Your task to perform on an android device: Search for flights from NYC to Chicago Image 0: 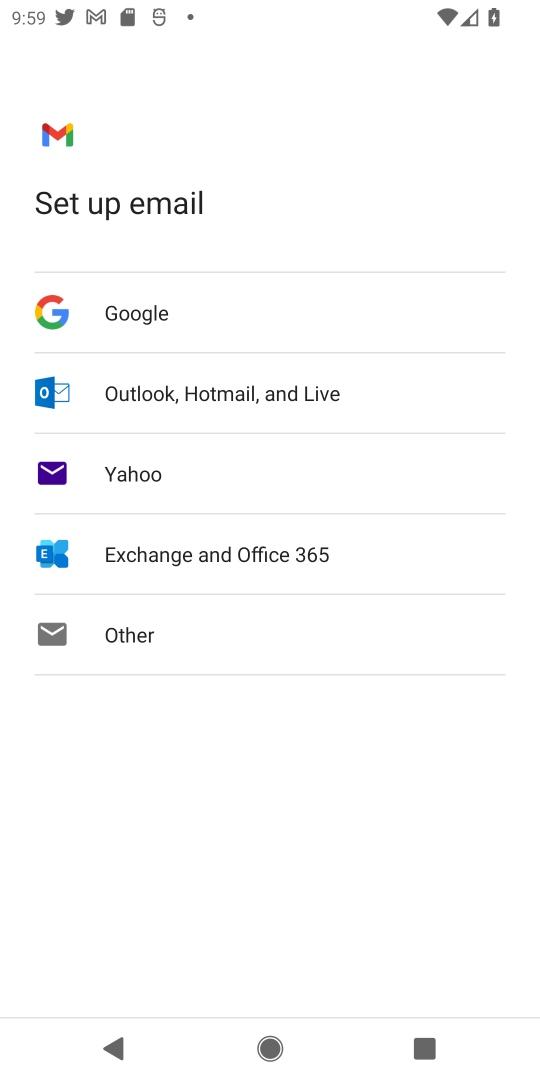
Step 0: press home button
Your task to perform on an android device: Search for flights from NYC to Chicago Image 1: 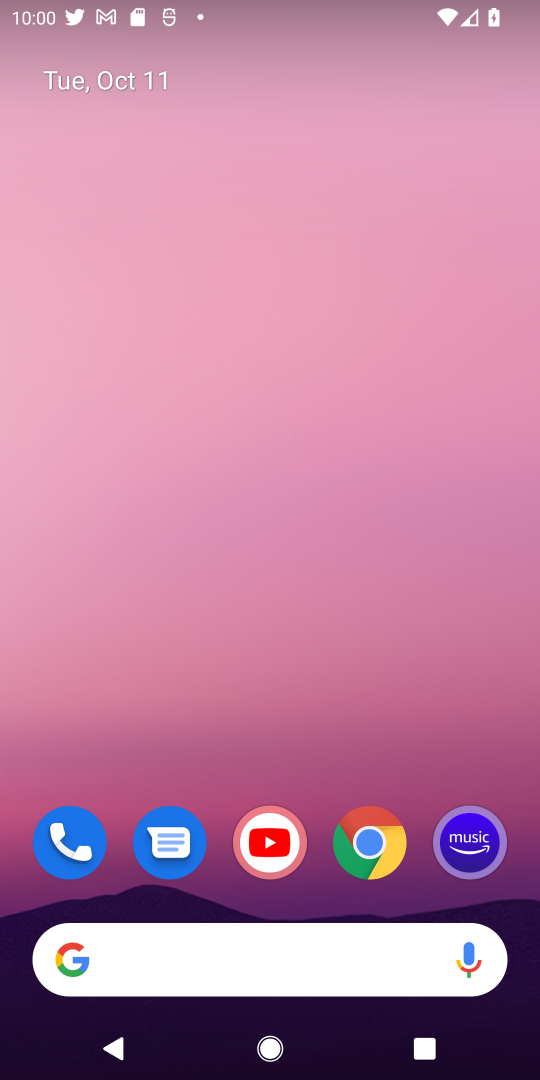
Step 1: click (348, 830)
Your task to perform on an android device: Search for flights from NYC to Chicago Image 2: 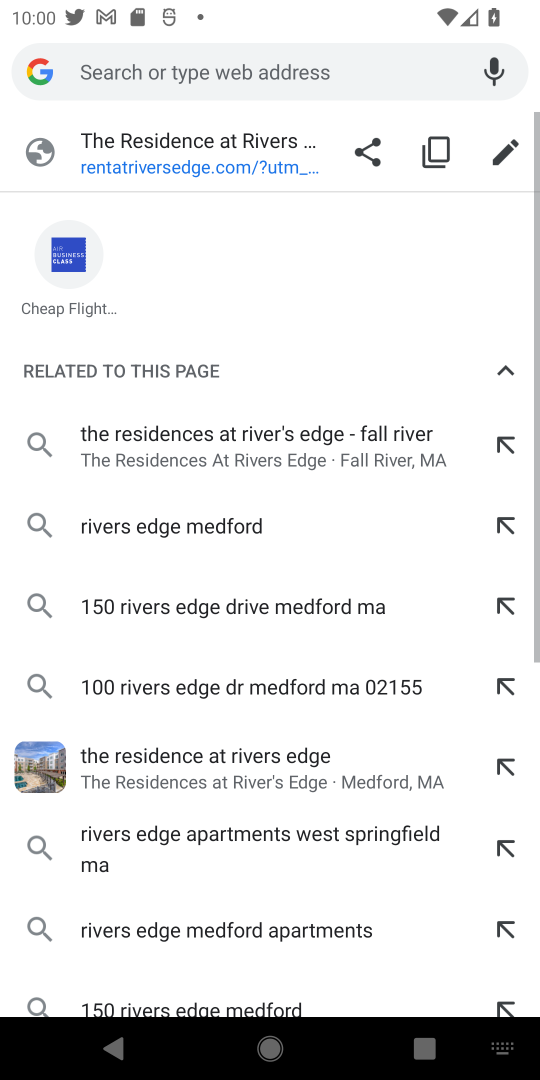
Step 2: click (250, 61)
Your task to perform on an android device: Search for flights from NYC to Chicago Image 3: 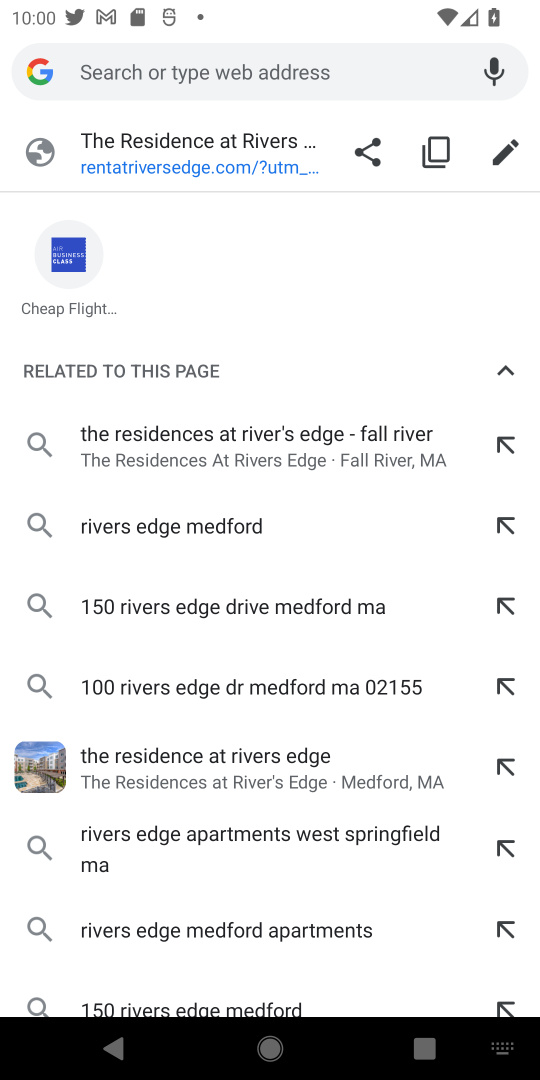
Step 3: type "search flight"
Your task to perform on an android device: Search for flights from NYC to Chicago Image 4: 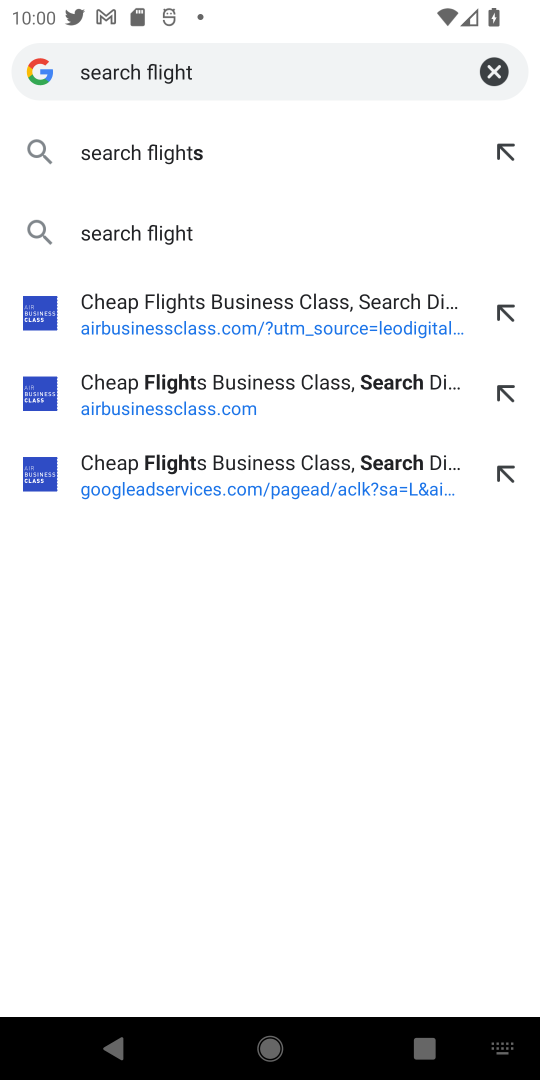
Step 4: click (222, 490)
Your task to perform on an android device: Search for flights from NYC to Chicago Image 5: 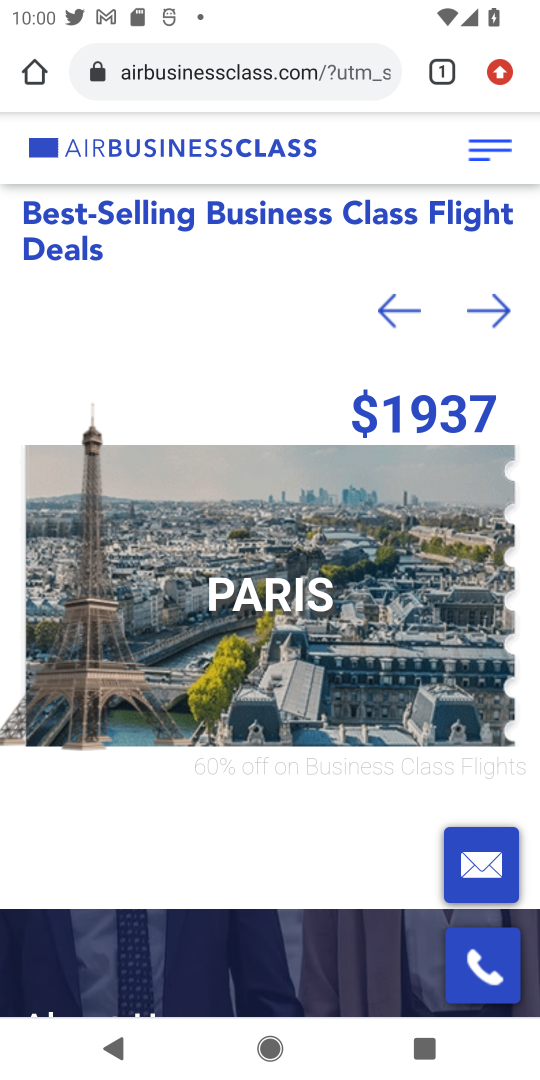
Step 5: drag from (238, 771) to (357, 206)
Your task to perform on an android device: Search for flights from NYC to Chicago Image 6: 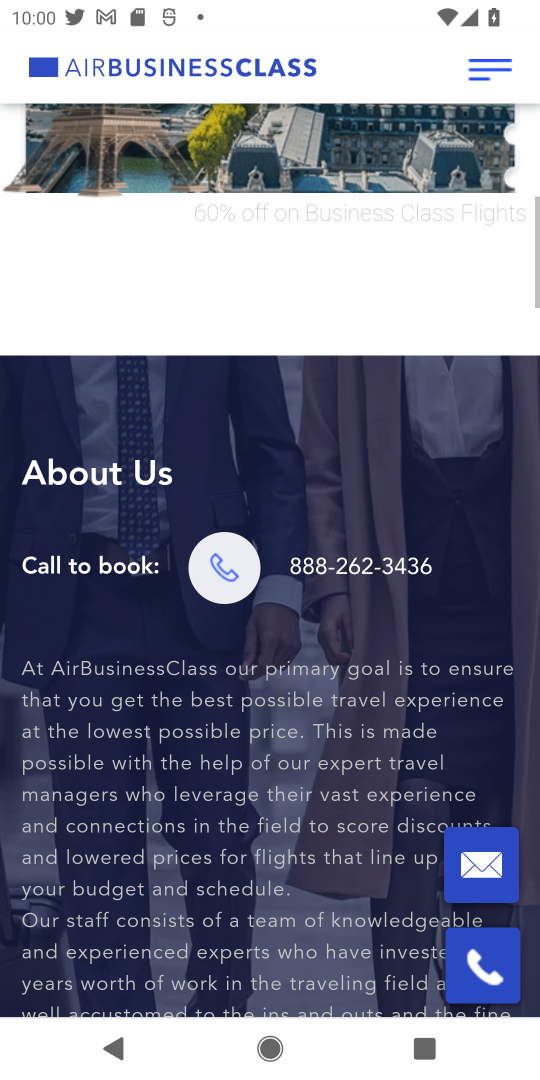
Step 6: drag from (208, 832) to (315, 309)
Your task to perform on an android device: Search for flights from NYC to Chicago Image 7: 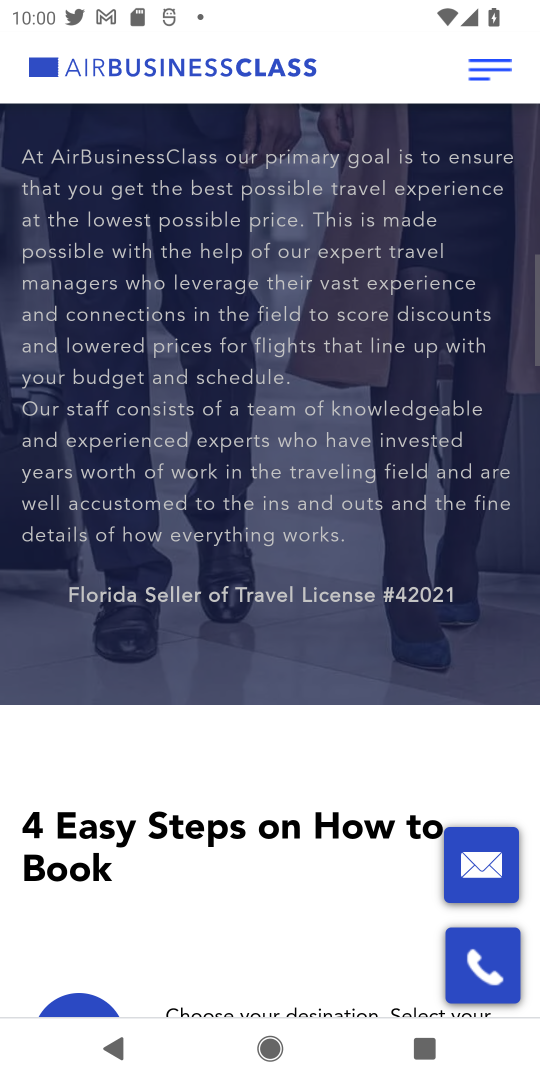
Step 7: drag from (325, 871) to (344, 309)
Your task to perform on an android device: Search for flights from NYC to Chicago Image 8: 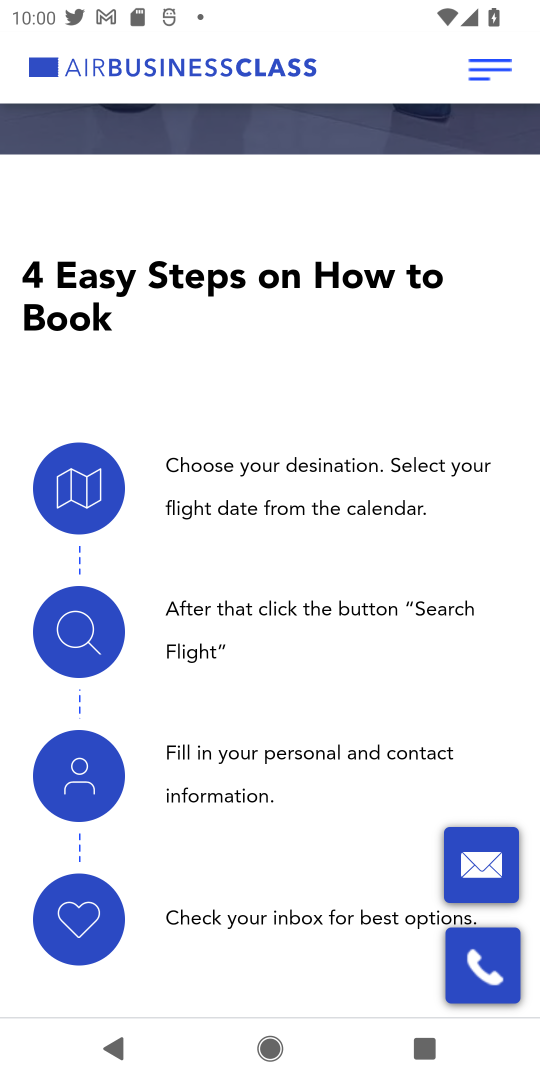
Step 8: drag from (204, 622) to (293, 89)
Your task to perform on an android device: Search for flights from NYC to Chicago Image 9: 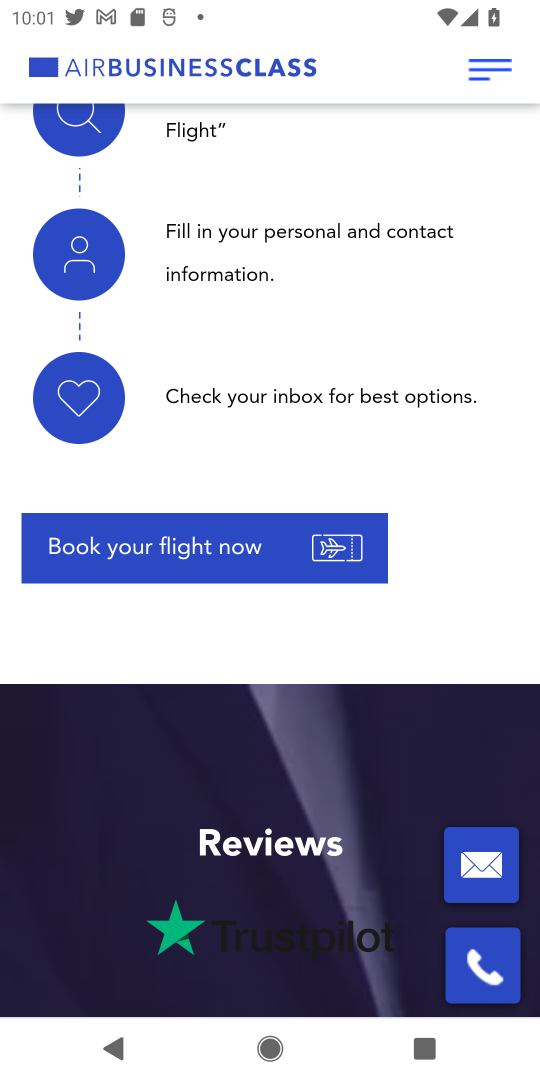
Step 9: click (199, 558)
Your task to perform on an android device: Search for flights from NYC to Chicago Image 10: 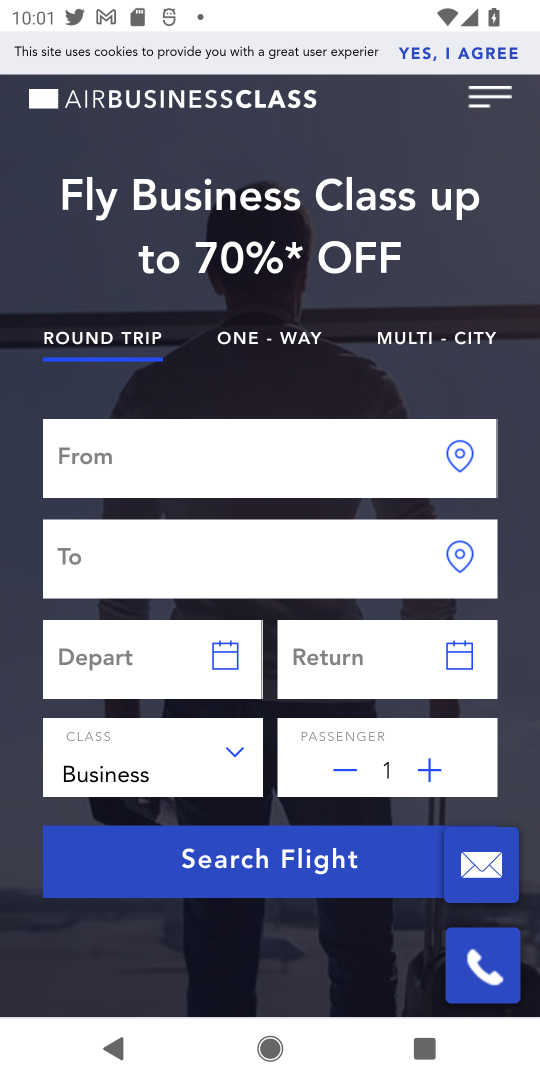
Step 10: click (465, 462)
Your task to perform on an android device: Search for flights from NYC to Chicago Image 11: 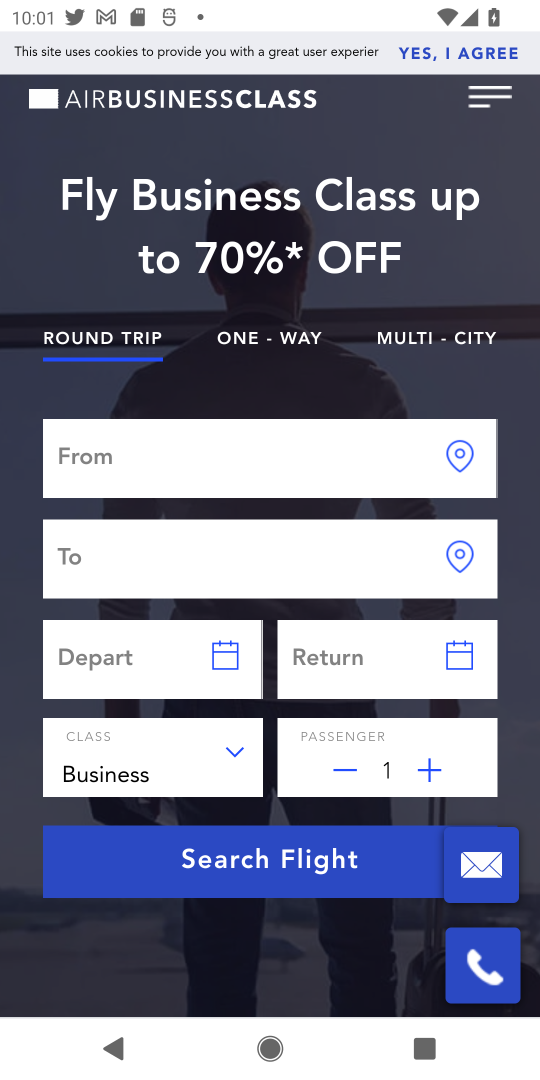
Step 11: click (310, 448)
Your task to perform on an android device: Search for flights from NYC to Chicago Image 12: 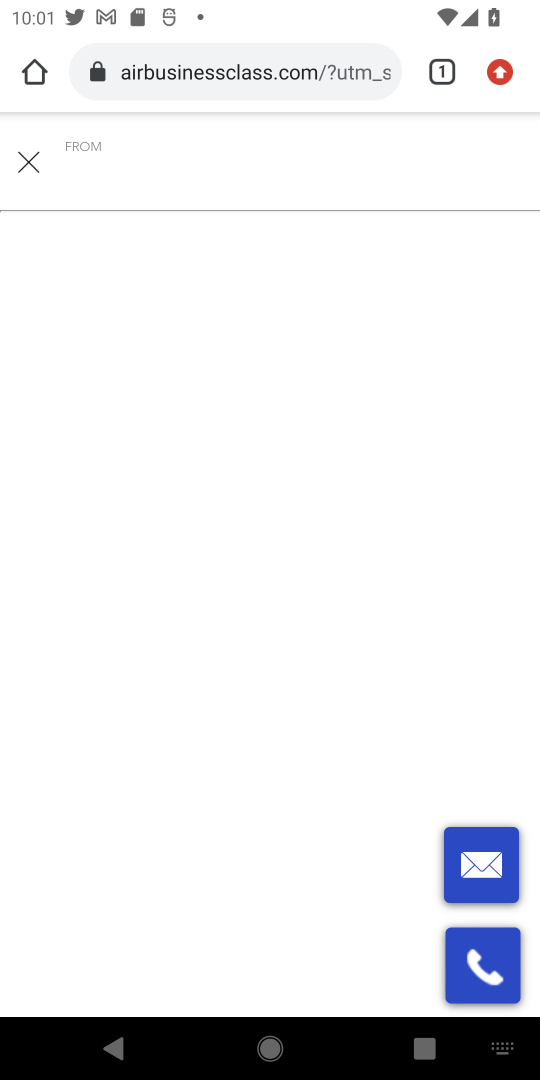
Step 12: type "nyc"
Your task to perform on an android device: Search for flights from NYC to Chicago Image 13: 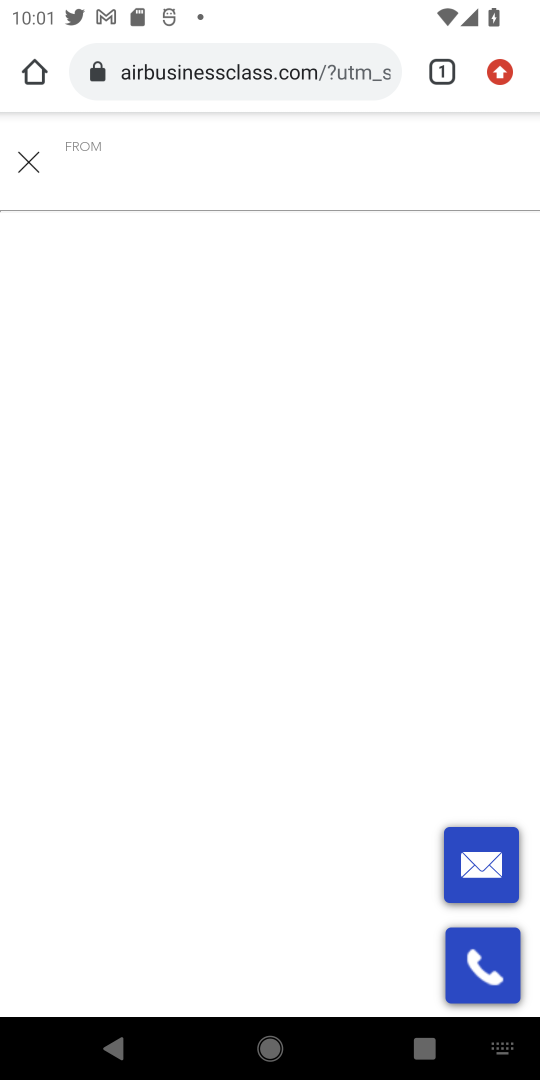
Step 13: type ""
Your task to perform on an android device: Search for flights from NYC to Chicago Image 14: 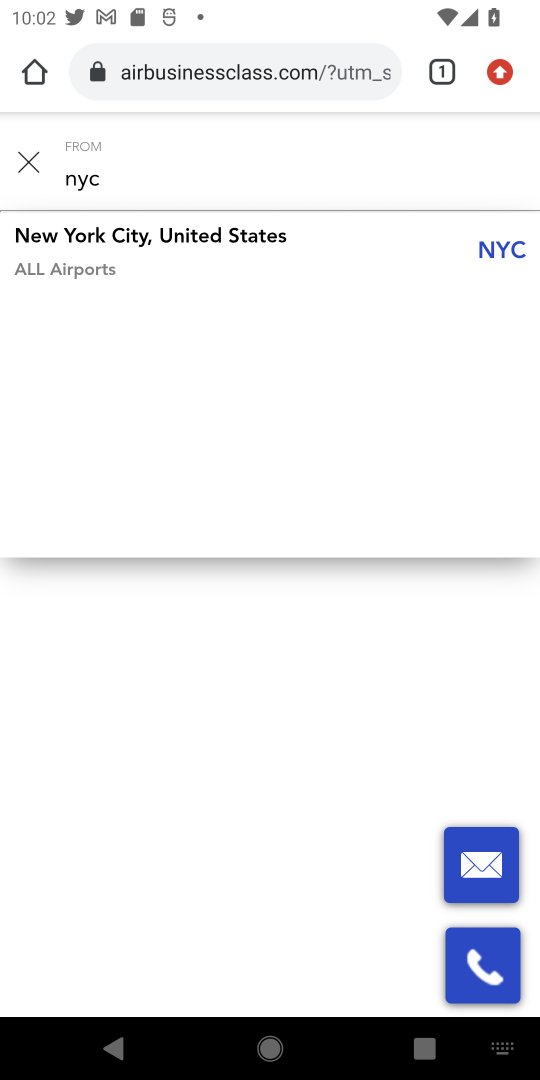
Step 14: click (118, 242)
Your task to perform on an android device: Search for flights from NYC to Chicago Image 15: 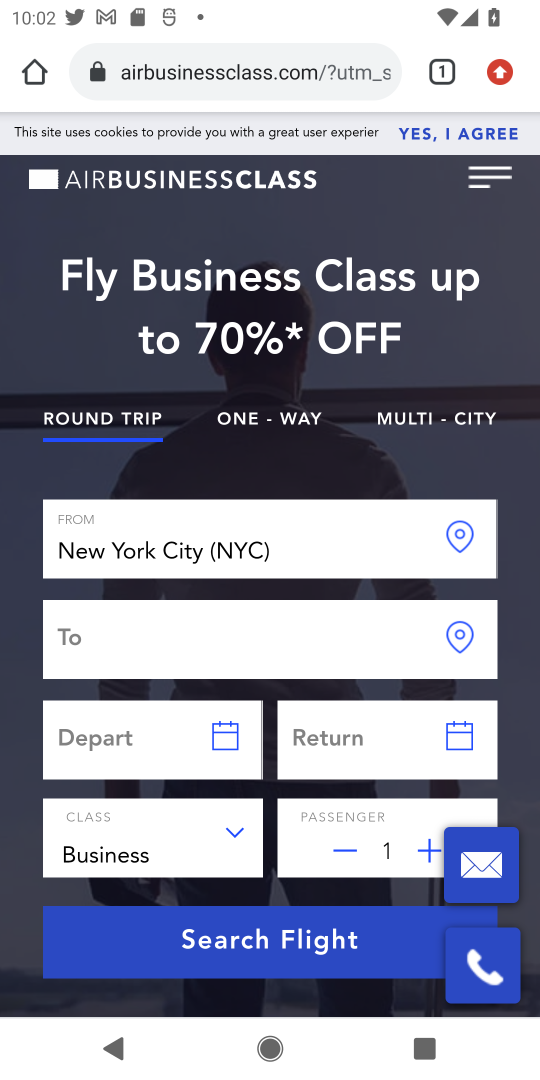
Step 15: click (186, 646)
Your task to perform on an android device: Search for flights from NYC to Chicago Image 16: 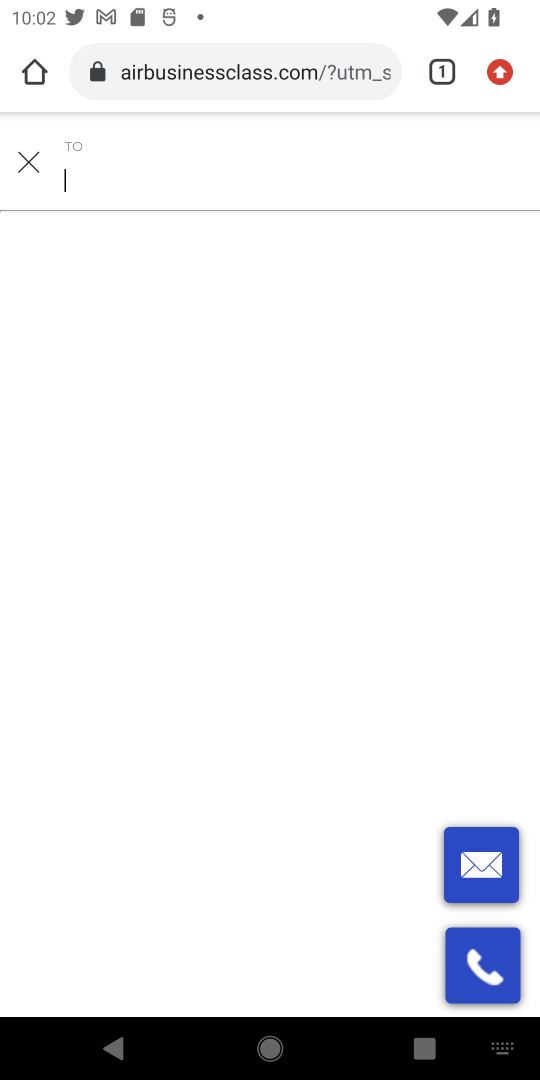
Step 16: type "chicago"
Your task to perform on an android device: Search for flights from NYC to Chicago Image 17: 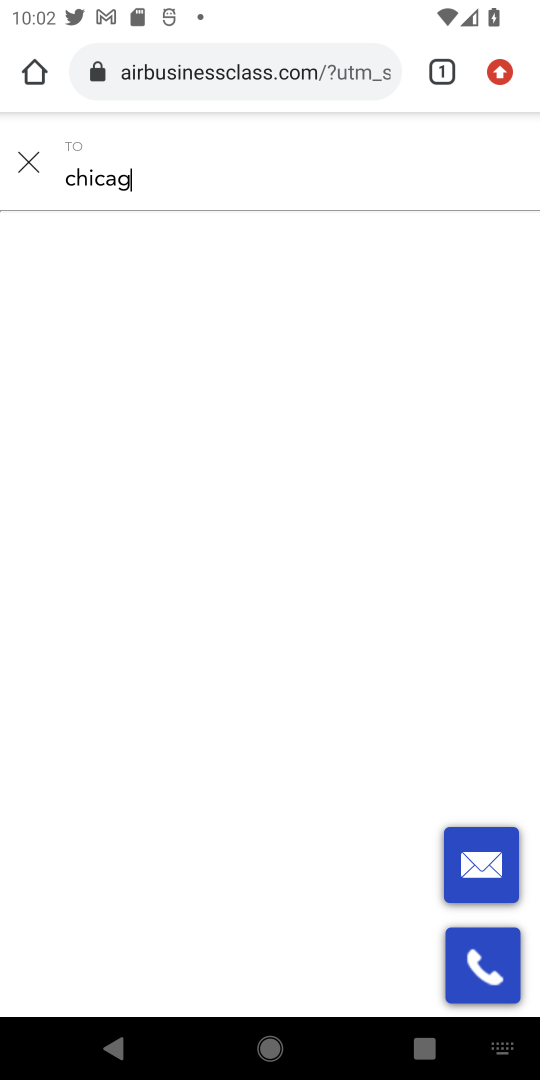
Step 17: type ""
Your task to perform on an android device: Search for flights from NYC to Chicago Image 18: 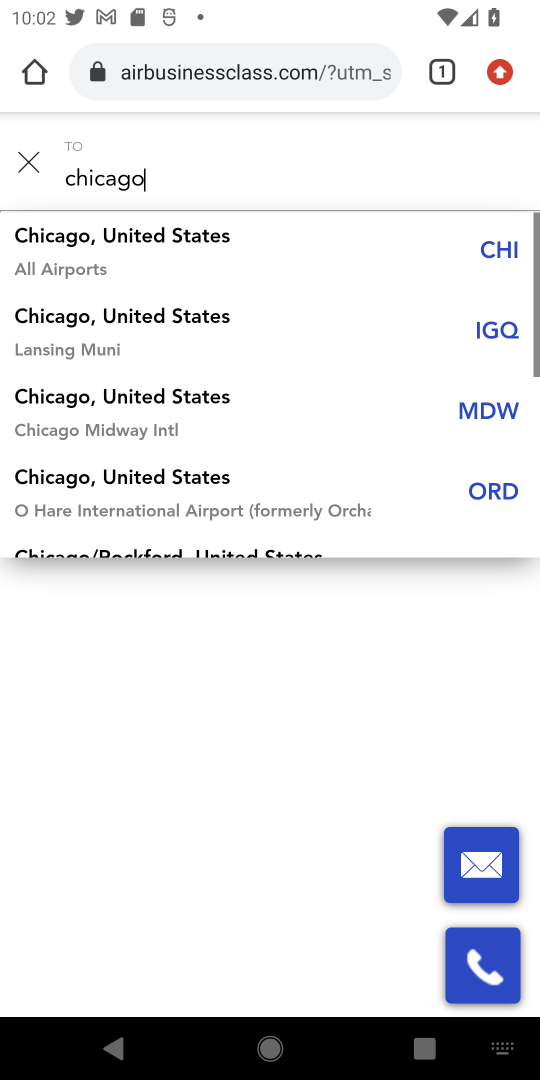
Step 18: click (118, 234)
Your task to perform on an android device: Search for flights from NYC to Chicago Image 19: 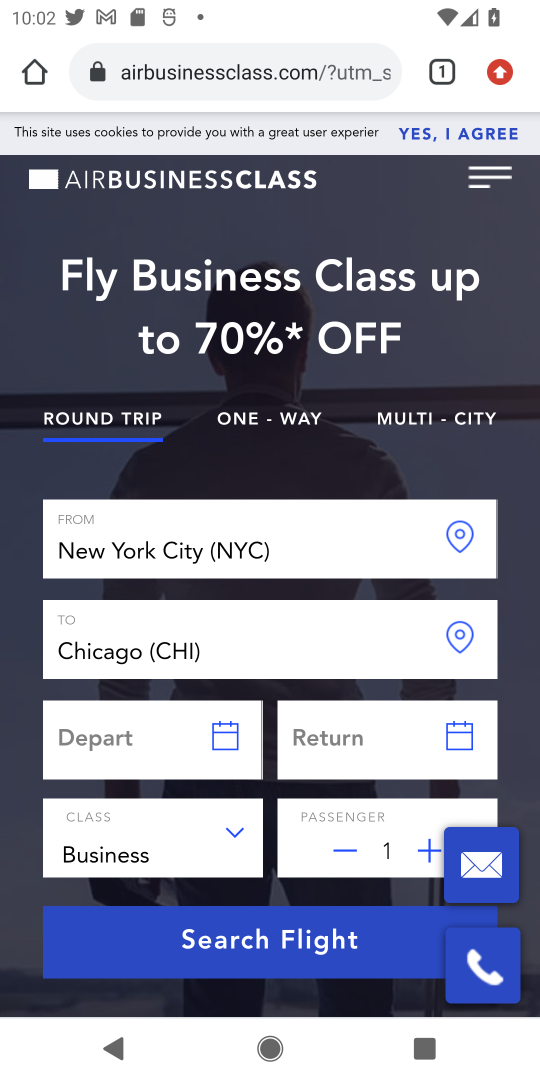
Step 19: click (241, 745)
Your task to perform on an android device: Search for flights from NYC to Chicago Image 20: 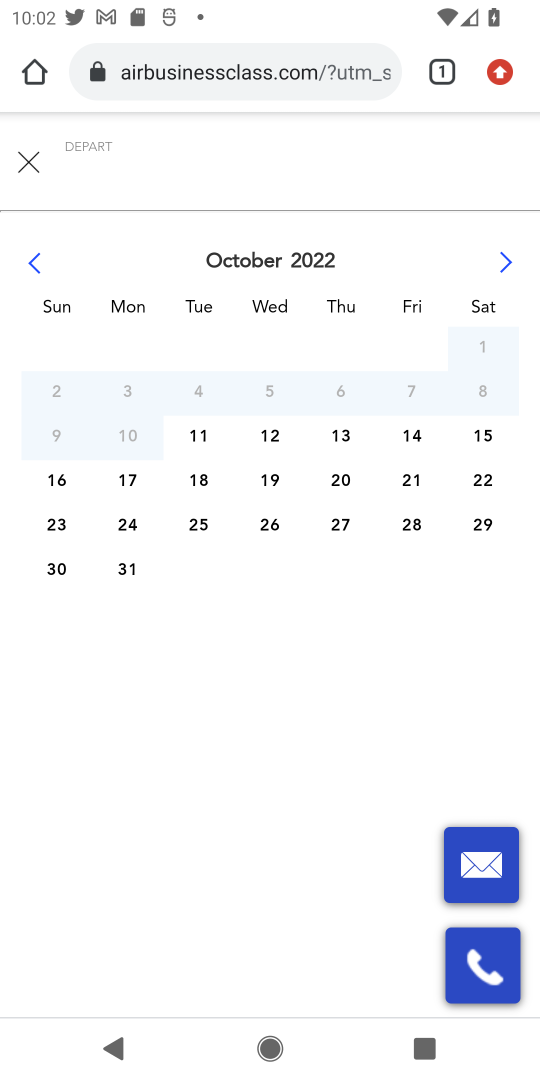
Step 20: click (81, 164)
Your task to perform on an android device: Search for flights from NYC to Chicago Image 21: 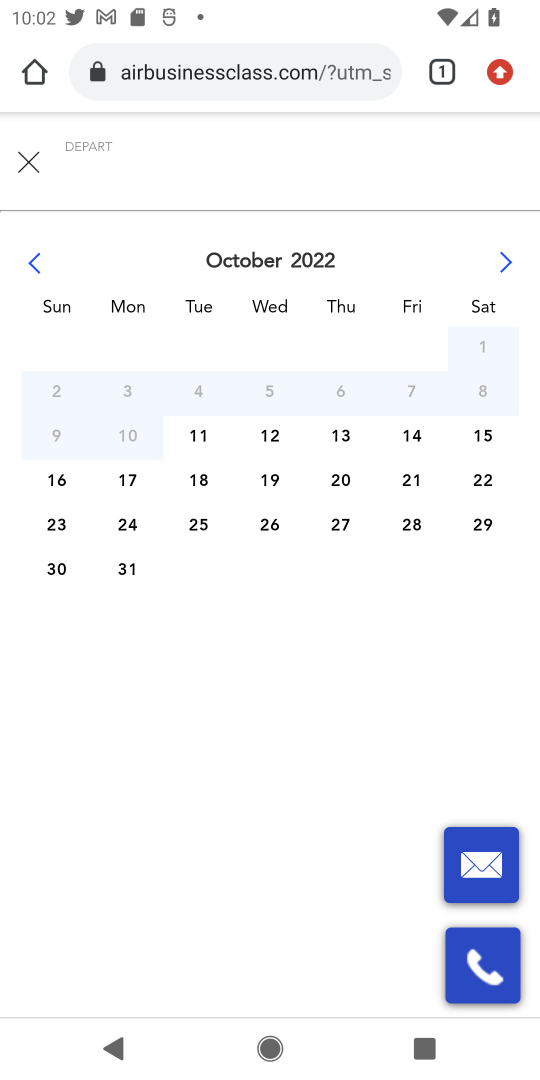
Step 21: click (137, 485)
Your task to perform on an android device: Search for flights from NYC to Chicago Image 22: 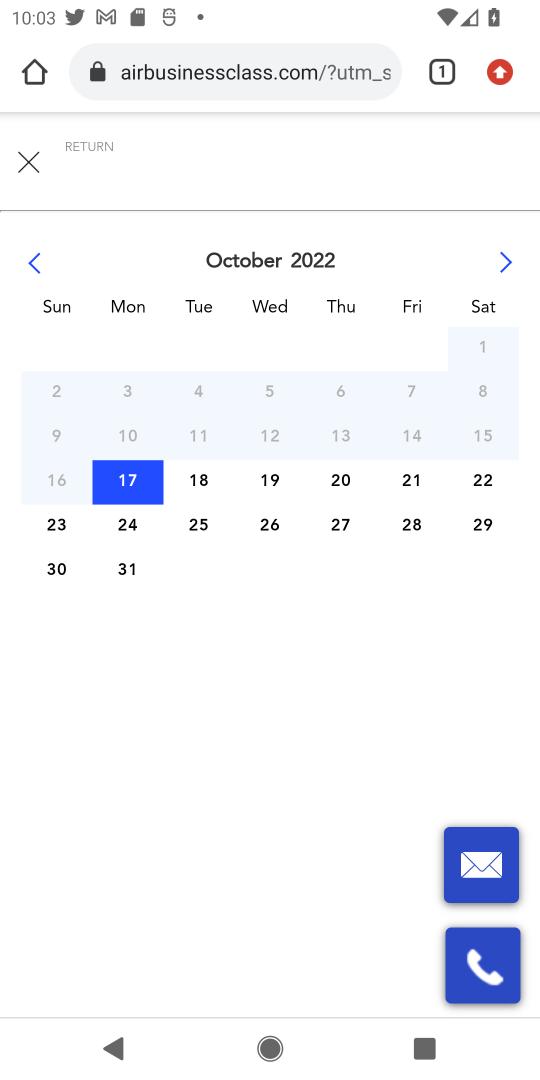
Step 22: click (122, 491)
Your task to perform on an android device: Search for flights from NYC to Chicago Image 23: 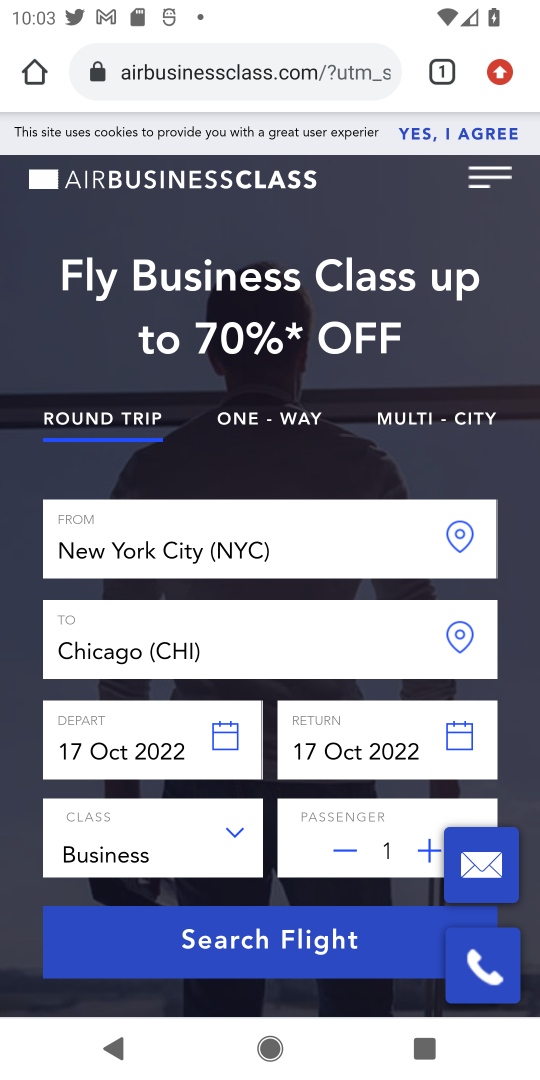
Step 23: click (467, 741)
Your task to perform on an android device: Search for flights from NYC to Chicago Image 24: 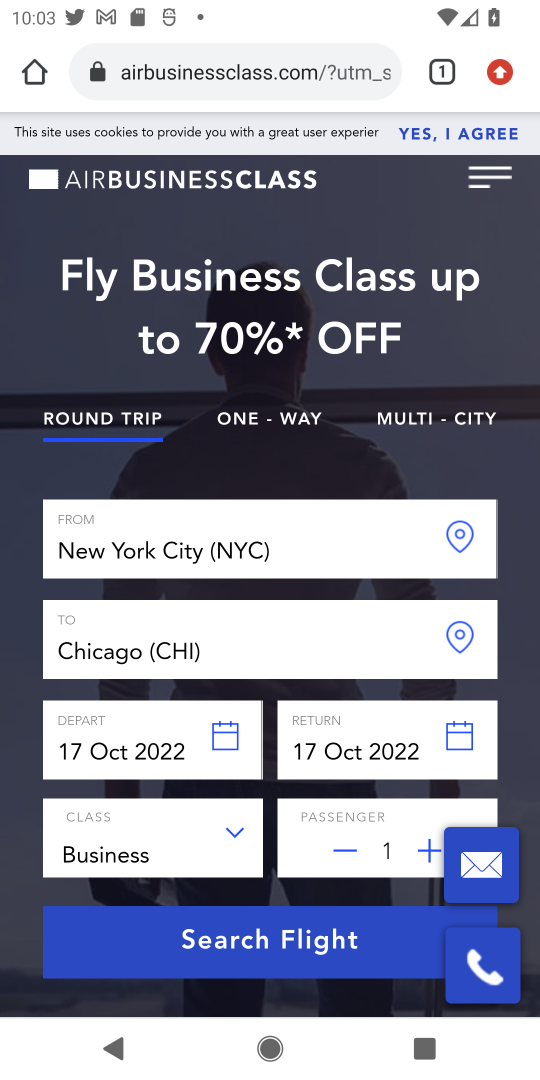
Step 24: click (471, 730)
Your task to perform on an android device: Search for flights from NYC to Chicago Image 25: 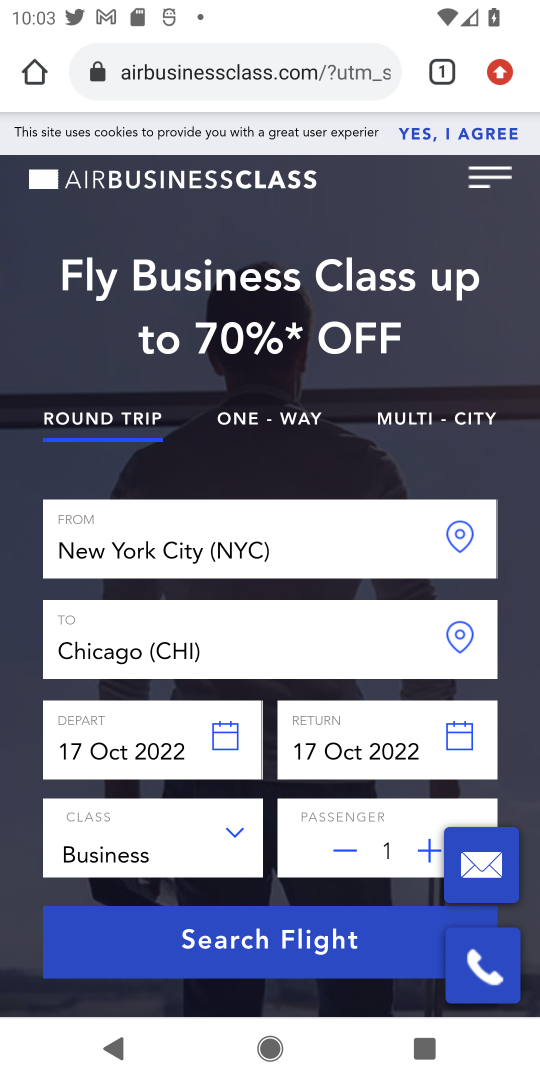
Step 25: click (454, 727)
Your task to perform on an android device: Search for flights from NYC to Chicago Image 26: 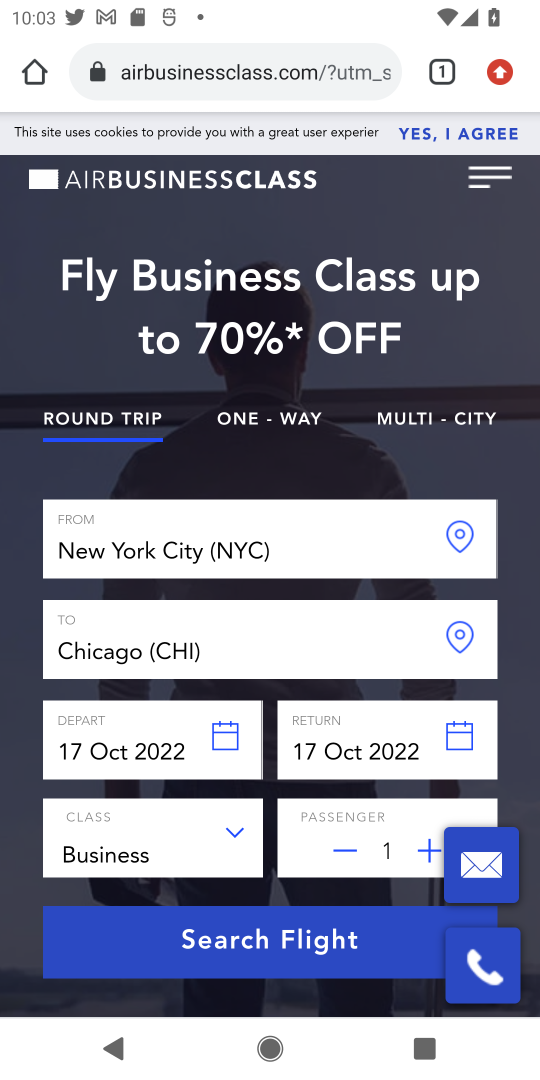
Step 26: click (462, 733)
Your task to perform on an android device: Search for flights from NYC to Chicago Image 27: 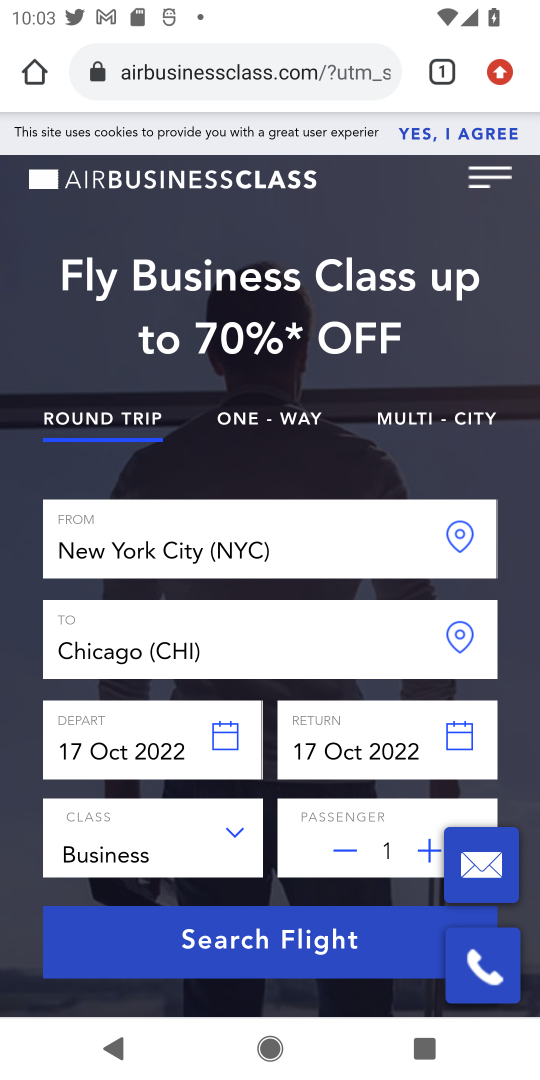
Step 27: click (288, 942)
Your task to perform on an android device: Search for flights from NYC to Chicago Image 28: 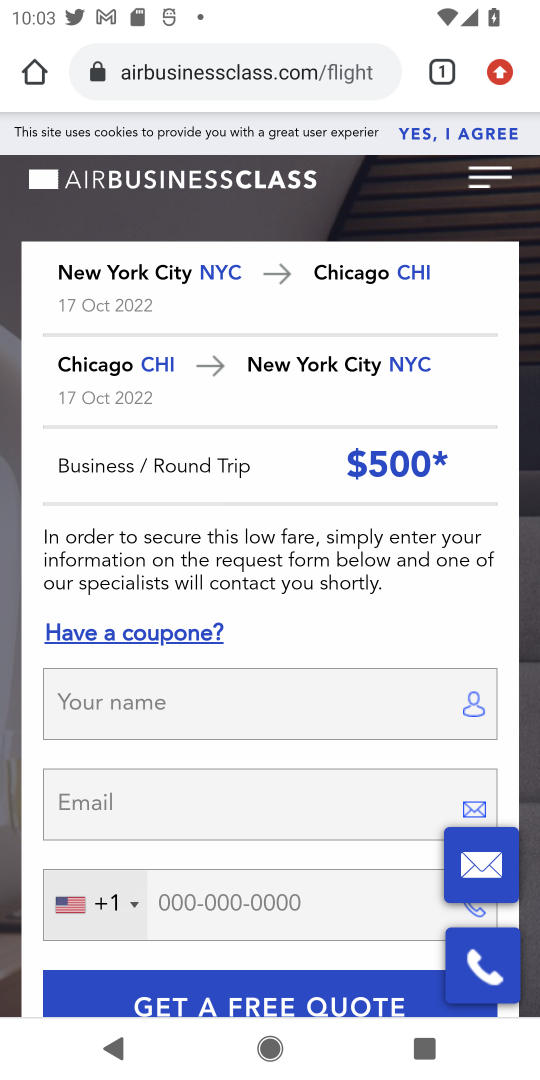
Step 28: task complete